Your task to perform on an android device: Go to accessibility settings Image 0: 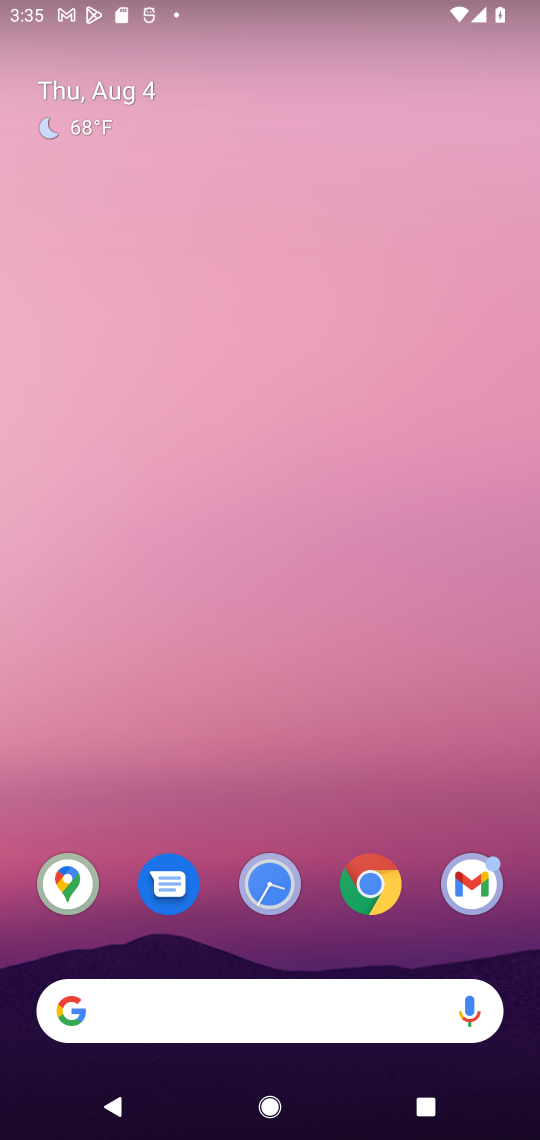
Step 0: drag from (290, 947) to (307, 177)
Your task to perform on an android device: Go to accessibility settings Image 1: 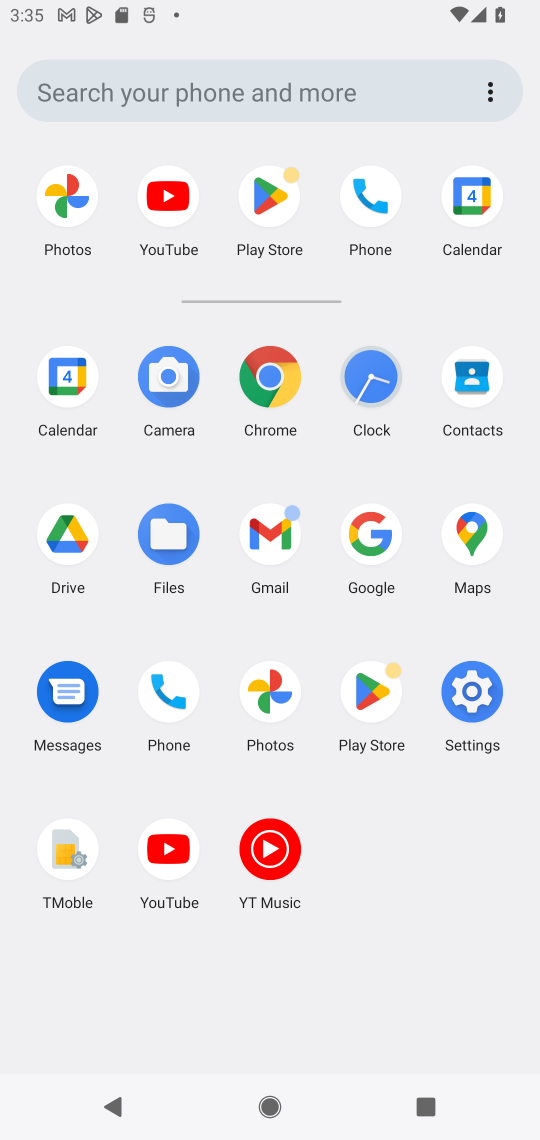
Step 1: click (503, 700)
Your task to perform on an android device: Go to accessibility settings Image 2: 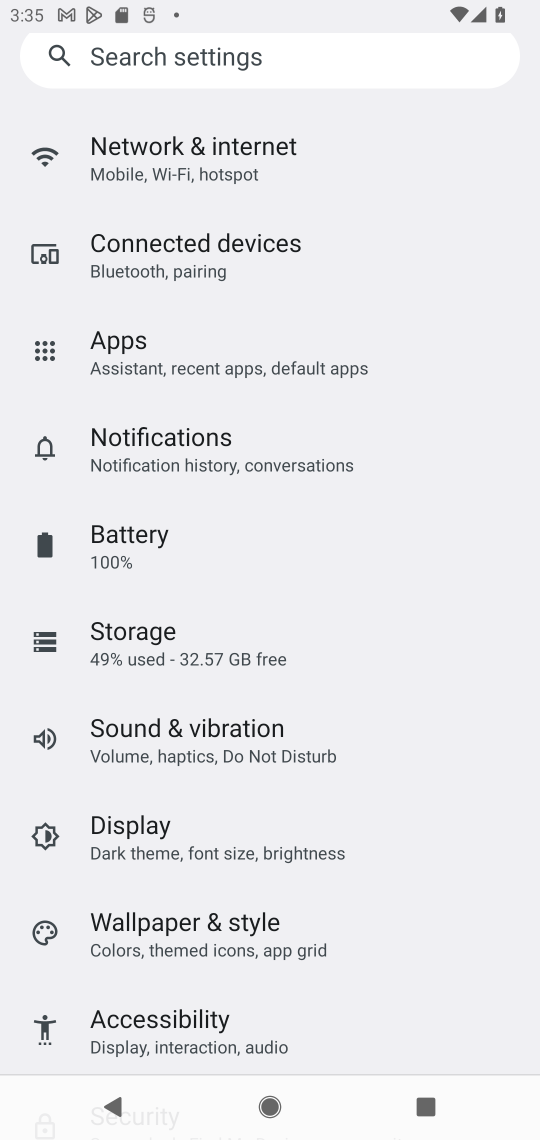
Step 2: click (208, 1010)
Your task to perform on an android device: Go to accessibility settings Image 3: 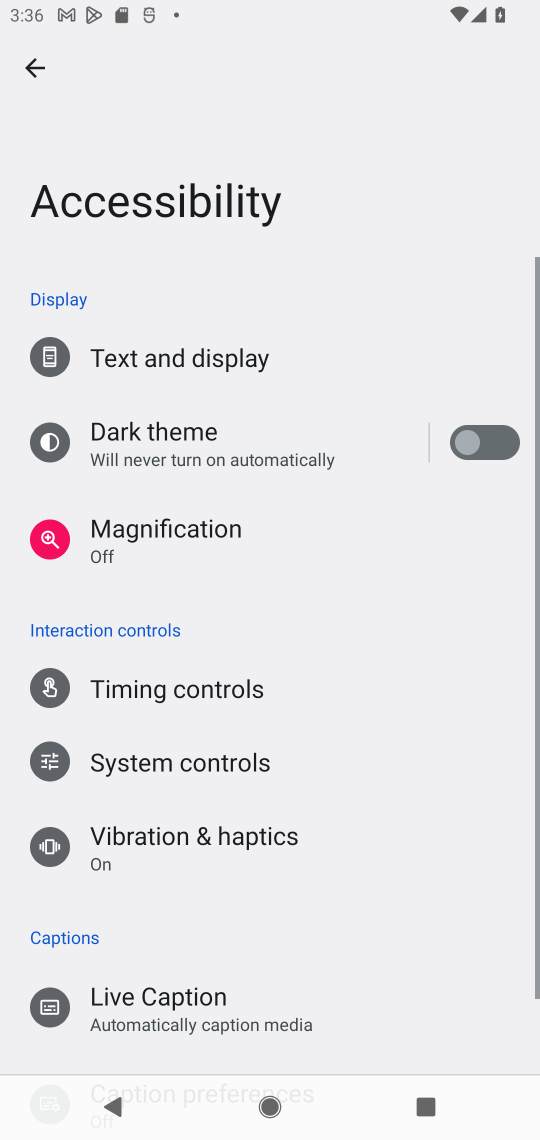
Step 3: task complete